Your task to perform on an android device: turn off smart reply in the gmail app Image 0: 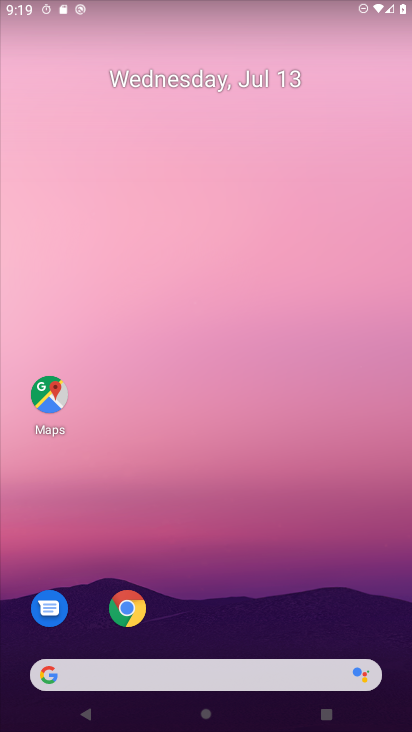
Step 0: drag from (277, 727) to (228, 323)
Your task to perform on an android device: turn off smart reply in the gmail app Image 1: 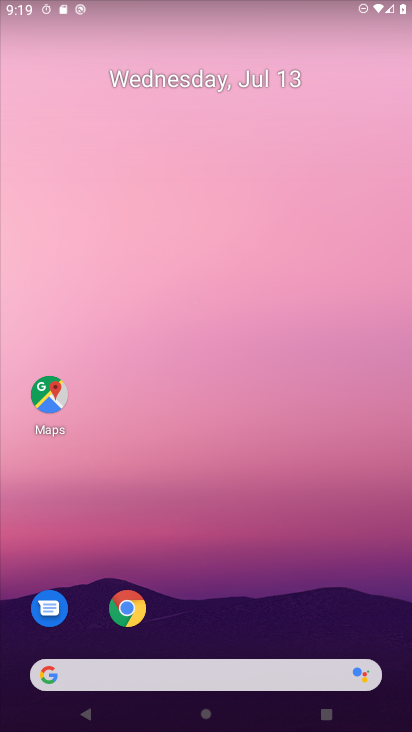
Step 1: drag from (213, 446) to (185, 224)
Your task to perform on an android device: turn off smart reply in the gmail app Image 2: 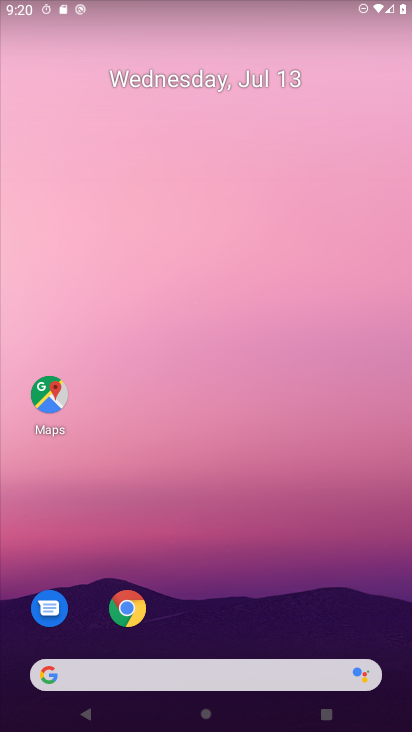
Step 2: drag from (251, 713) to (157, 108)
Your task to perform on an android device: turn off smart reply in the gmail app Image 3: 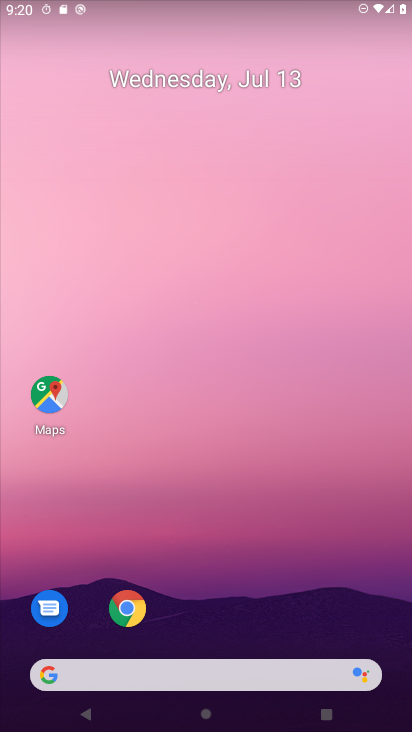
Step 3: drag from (269, 610) to (263, 330)
Your task to perform on an android device: turn off smart reply in the gmail app Image 4: 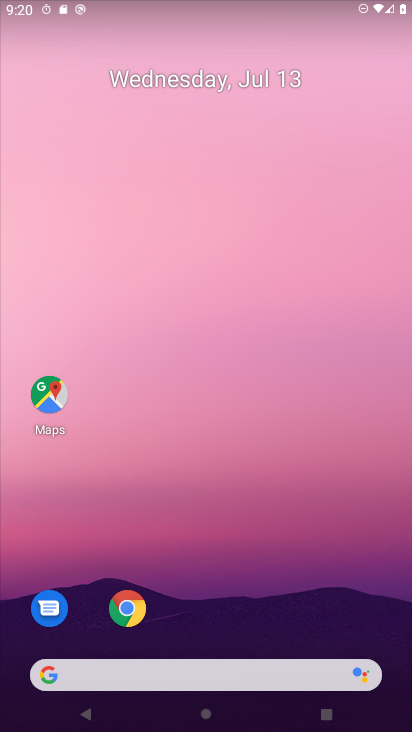
Step 4: drag from (209, 552) to (171, 238)
Your task to perform on an android device: turn off smart reply in the gmail app Image 5: 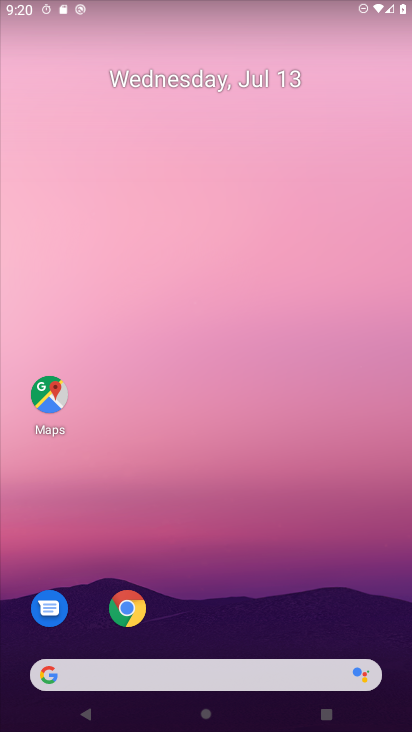
Step 5: drag from (240, 615) to (106, 137)
Your task to perform on an android device: turn off smart reply in the gmail app Image 6: 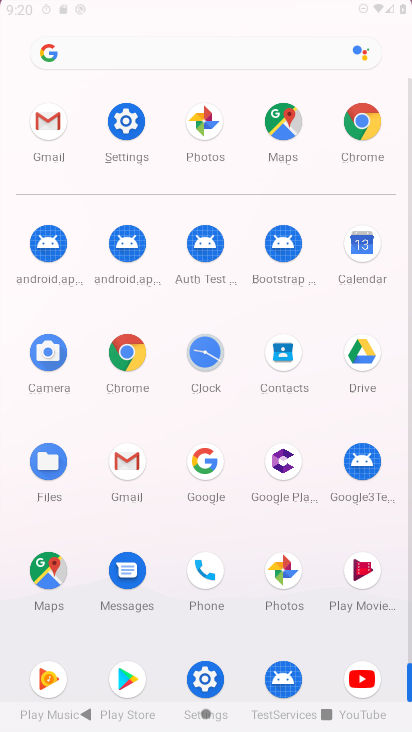
Step 6: drag from (233, 545) to (233, 138)
Your task to perform on an android device: turn off smart reply in the gmail app Image 7: 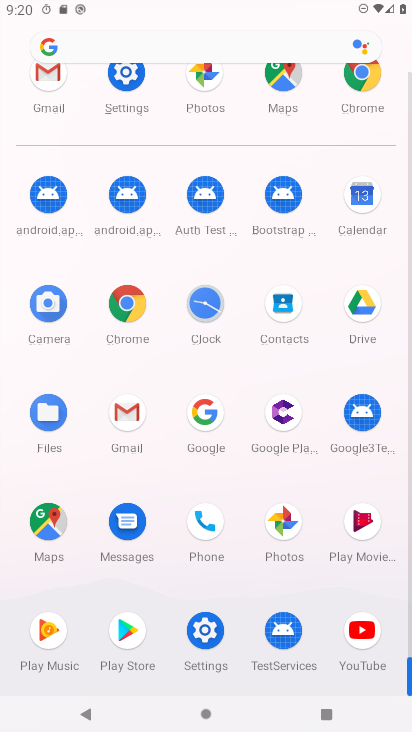
Step 7: click (122, 423)
Your task to perform on an android device: turn off smart reply in the gmail app Image 8: 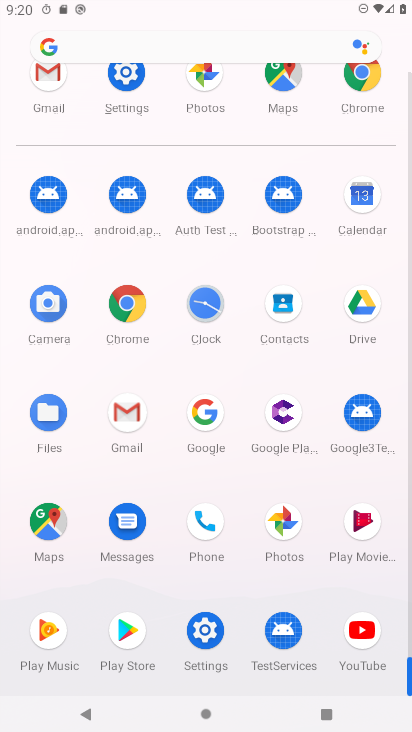
Step 8: click (123, 424)
Your task to perform on an android device: turn off smart reply in the gmail app Image 9: 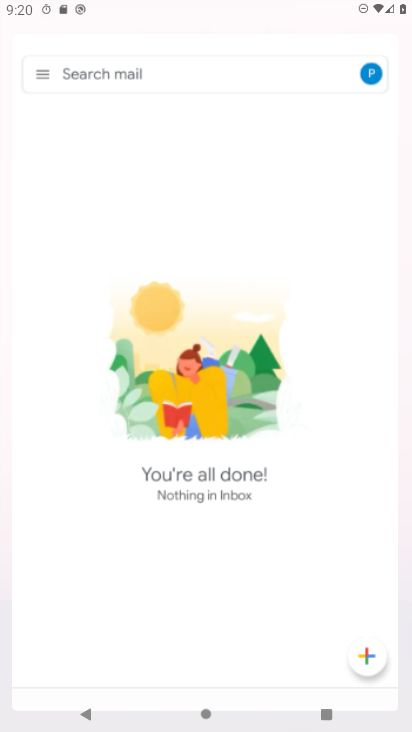
Step 9: click (123, 424)
Your task to perform on an android device: turn off smart reply in the gmail app Image 10: 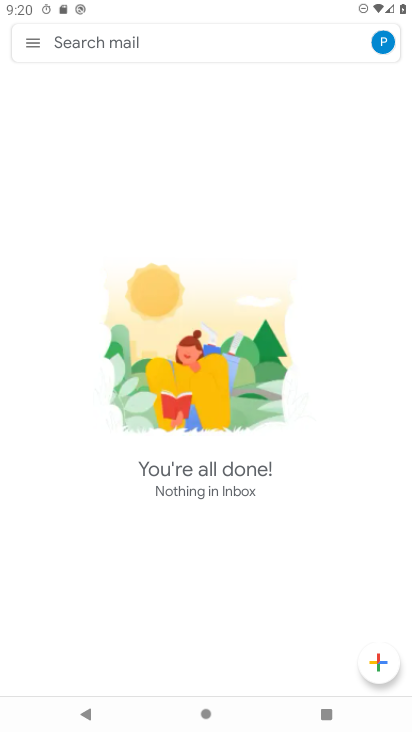
Step 10: click (32, 46)
Your task to perform on an android device: turn off smart reply in the gmail app Image 11: 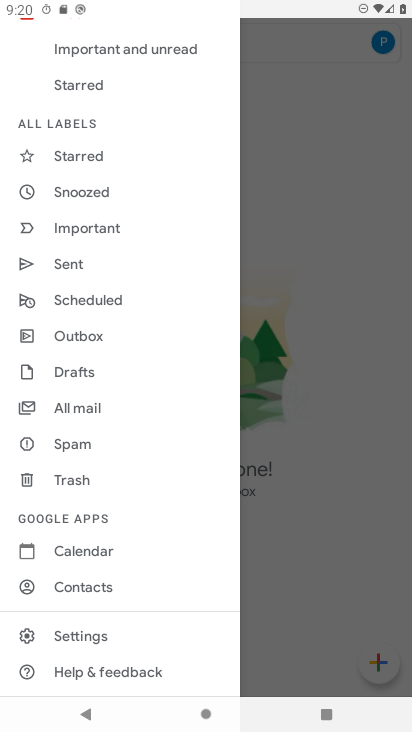
Step 11: click (70, 635)
Your task to perform on an android device: turn off smart reply in the gmail app Image 12: 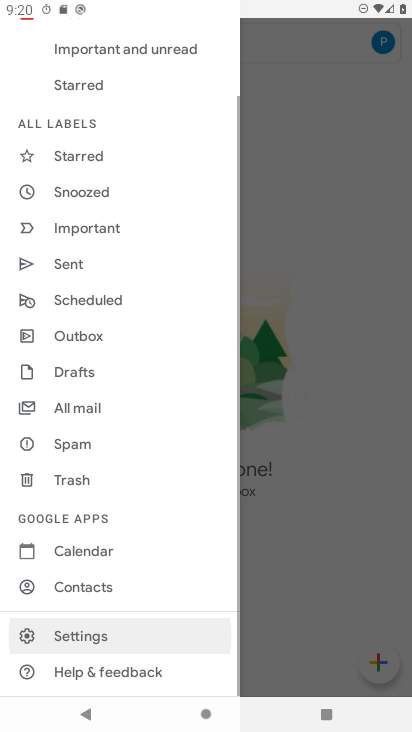
Step 12: click (71, 634)
Your task to perform on an android device: turn off smart reply in the gmail app Image 13: 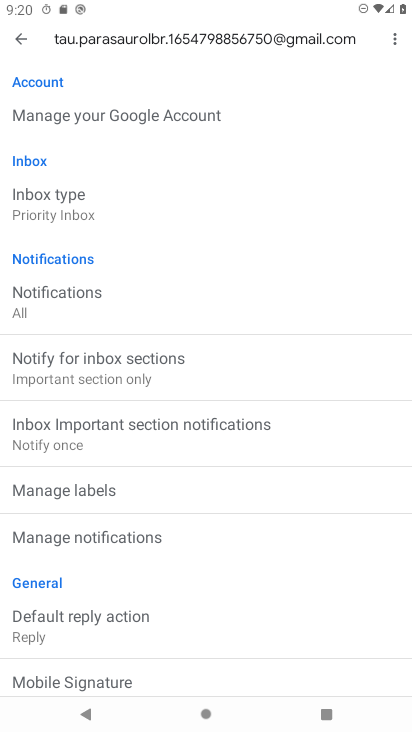
Step 13: task complete